Your task to perform on an android device: Open calendar and show me the fourth week of next month Image 0: 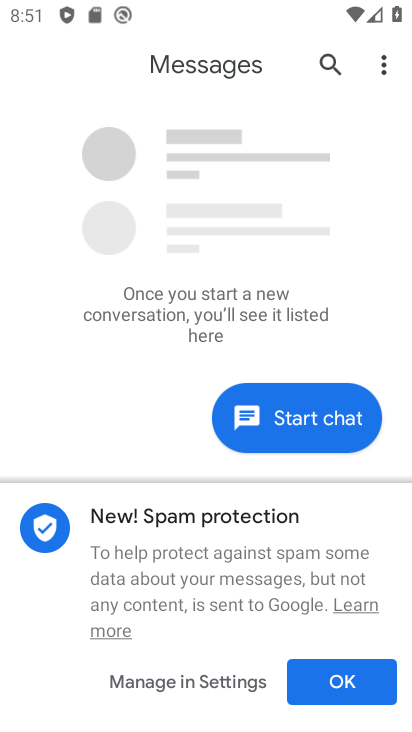
Step 0: press home button
Your task to perform on an android device: Open calendar and show me the fourth week of next month Image 1: 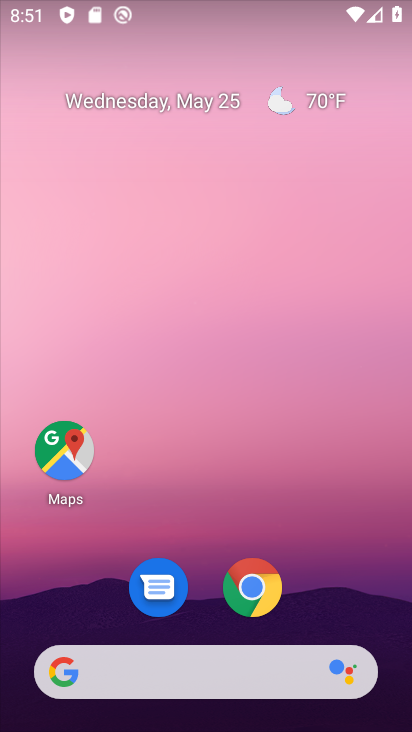
Step 1: drag from (207, 575) to (221, 0)
Your task to perform on an android device: Open calendar and show me the fourth week of next month Image 2: 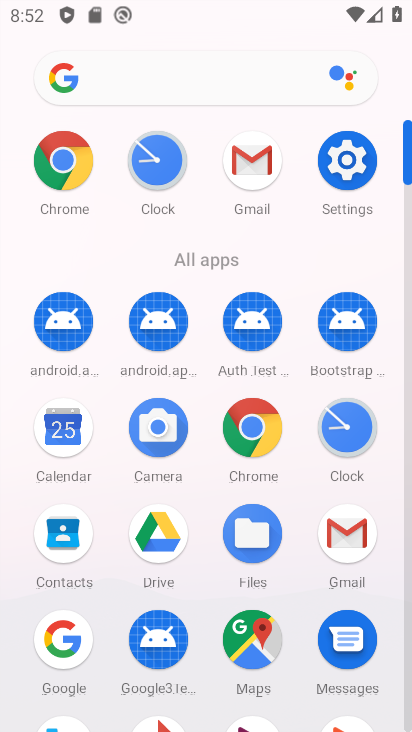
Step 2: click (59, 440)
Your task to perform on an android device: Open calendar and show me the fourth week of next month Image 3: 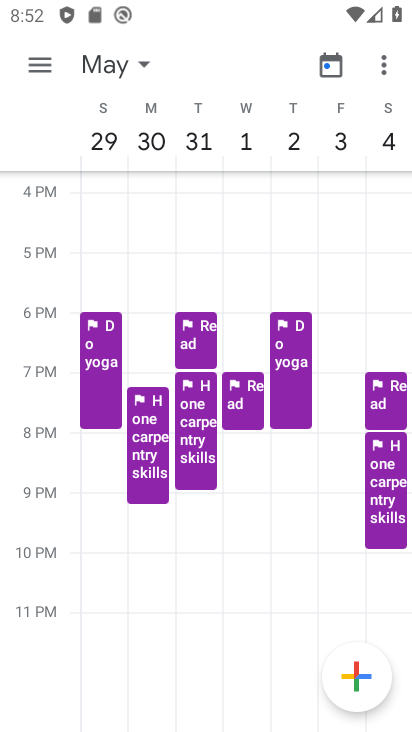
Step 3: task complete